Your task to perform on an android device: Open Youtube and go to the subscriptions tab Image 0: 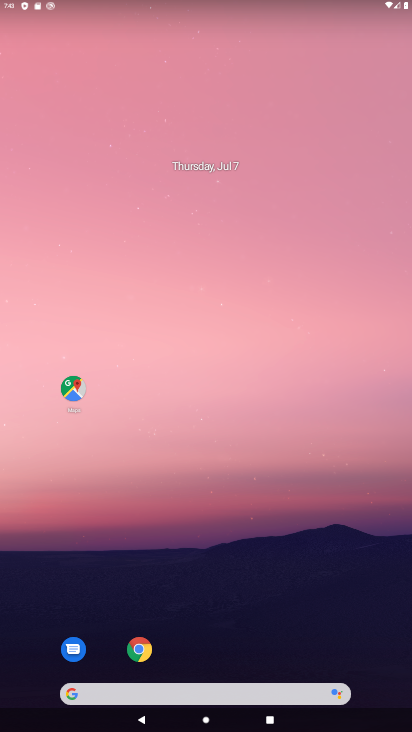
Step 0: drag from (203, 656) to (227, 125)
Your task to perform on an android device: Open Youtube and go to the subscriptions tab Image 1: 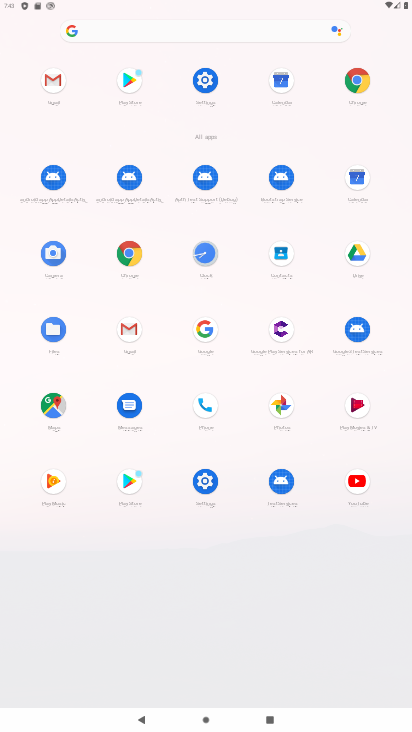
Step 1: click (357, 475)
Your task to perform on an android device: Open Youtube and go to the subscriptions tab Image 2: 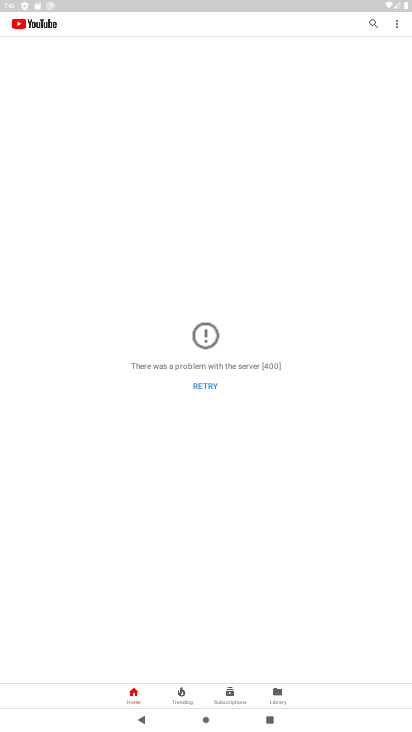
Step 2: click (230, 689)
Your task to perform on an android device: Open Youtube and go to the subscriptions tab Image 3: 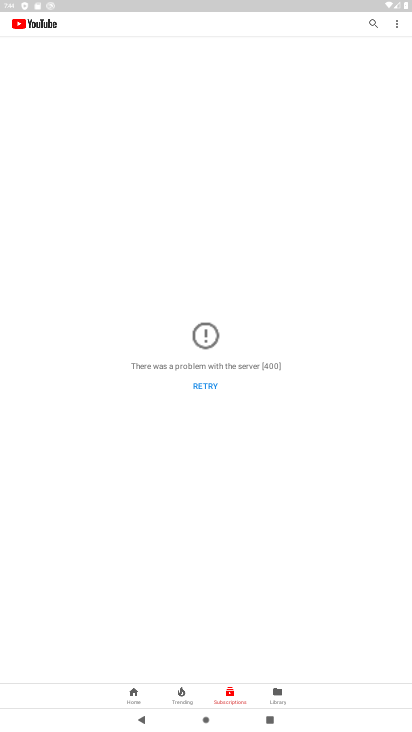
Step 3: task complete